Your task to perform on an android device: Open the phone app and click the voicemail tab. Image 0: 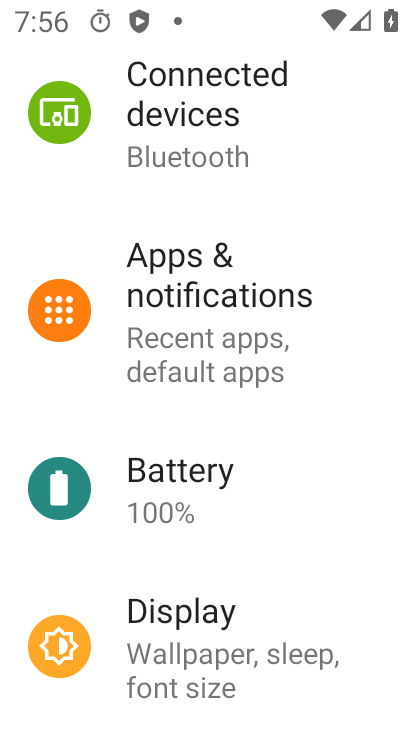
Step 0: press home button
Your task to perform on an android device: Open the phone app and click the voicemail tab. Image 1: 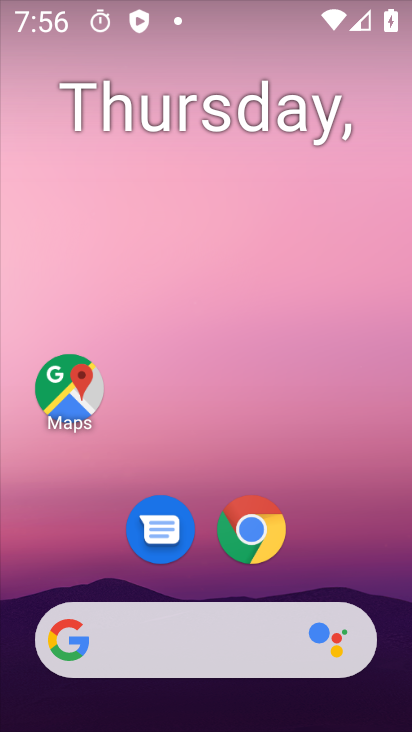
Step 1: drag from (385, 700) to (294, 221)
Your task to perform on an android device: Open the phone app and click the voicemail tab. Image 2: 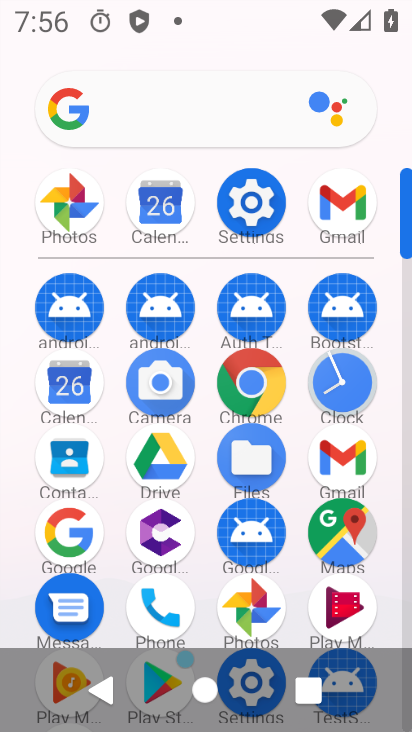
Step 2: click (152, 606)
Your task to perform on an android device: Open the phone app and click the voicemail tab. Image 3: 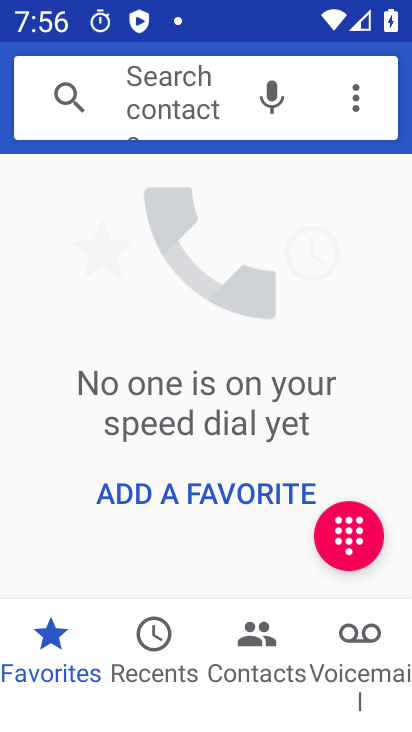
Step 3: click (368, 659)
Your task to perform on an android device: Open the phone app and click the voicemail tab. Image 4: 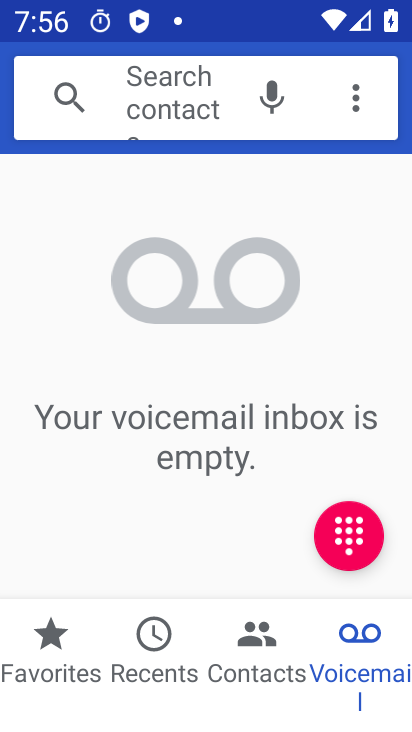
Step 4: task complete